Your task to perform on an android device: open wifi settings Image 0: 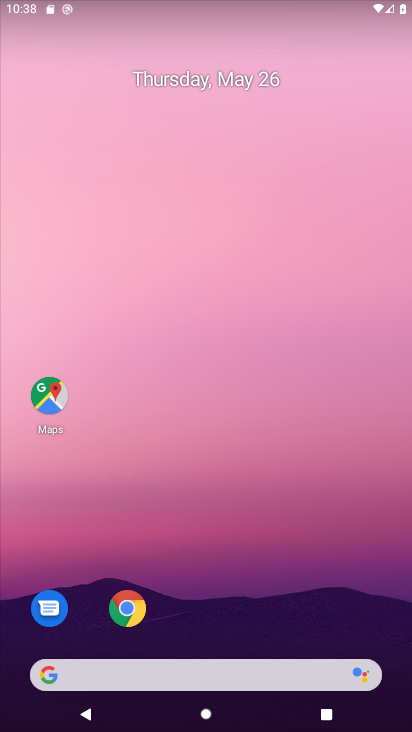
Step 0: drag from (290, 611) to (236, 193)
Your task to perform on an android device: open wifi settings Image 1: 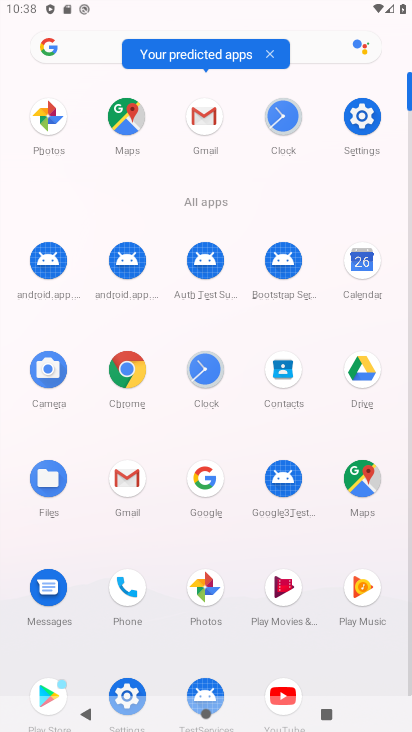
Step 1: click (365, 130)
Your task to perform on an android device: open wifi settings Image 2: 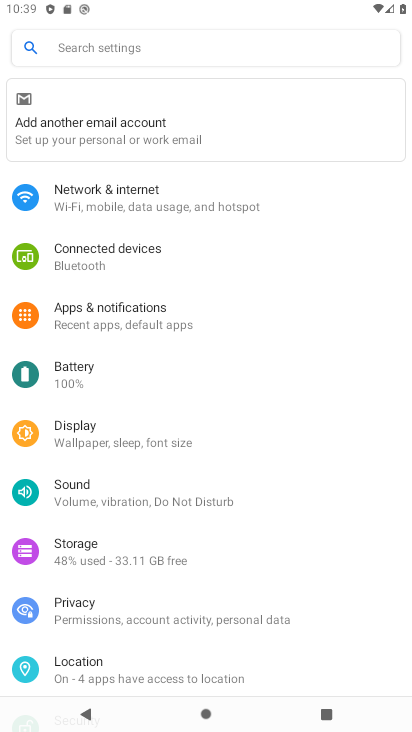
Step 2: click (175, 211)
Your task to perform on an android device: open wifi settings Image 3: 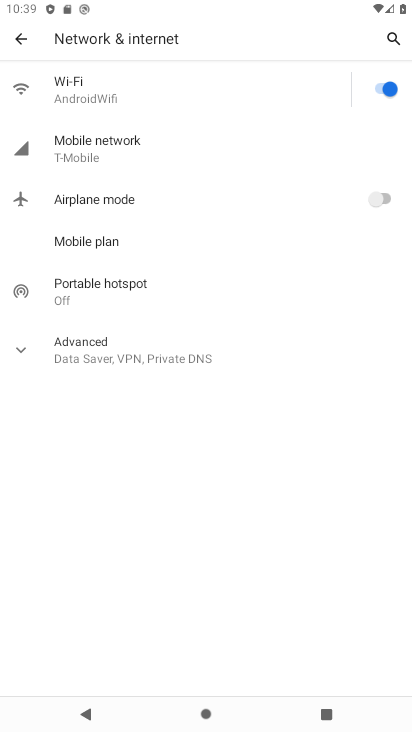
Step 3: click (123, 98)
Your task to perform on an android device: open wifi settings Image 4: 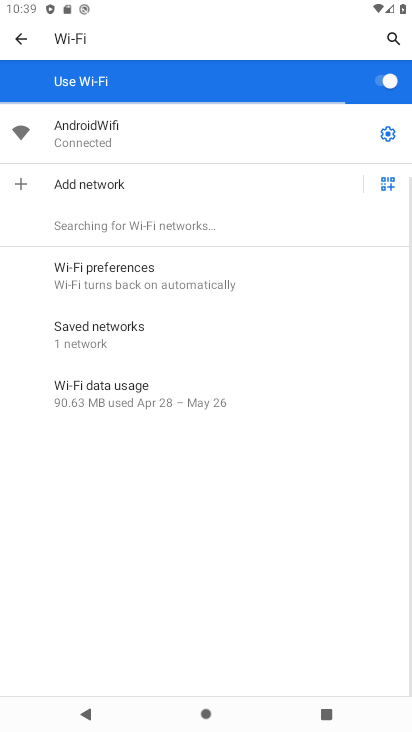
Step 4: click (384, 124)
Your task to perform on an android device: open wifi settings Image 5: 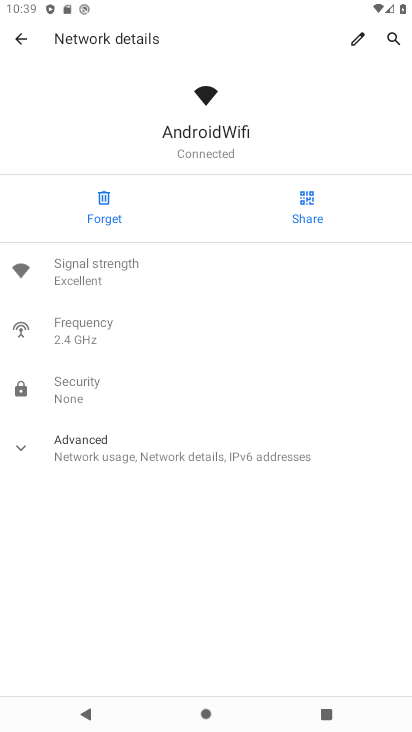
Step 5: task complete